Your task to perform on an android device: change notifications settings Image 0: 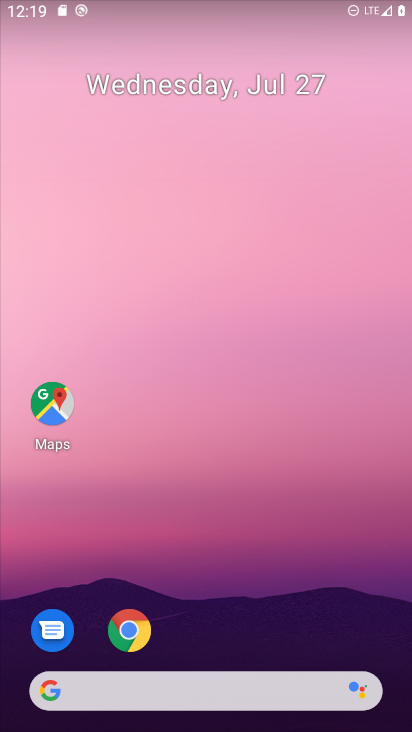
Step 0: drag from (376, 628) to (332, 206)
Your task to perform on an android device: change notifications settings Image 1: 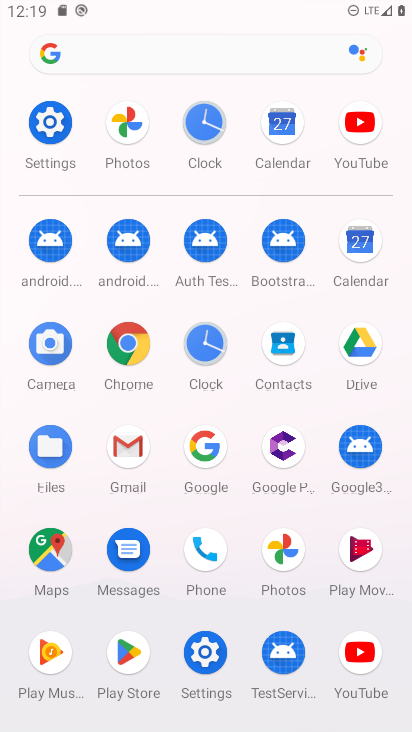
Step 1: click (202, 653)
Your task to perform on an android device: change notifications settings Image 2: 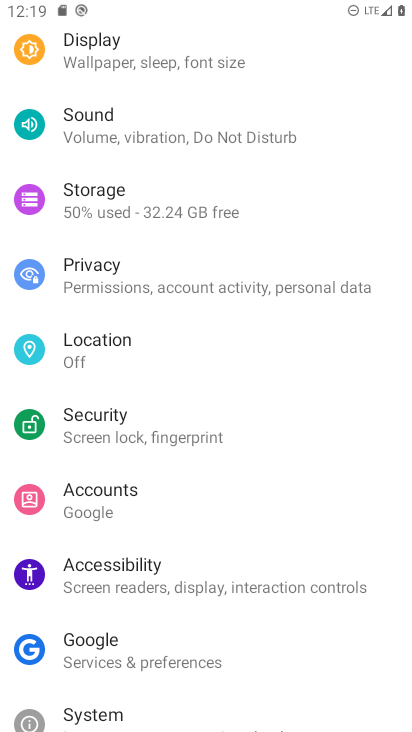
Step 2: drag from (346, 174) to (342, 451)
Your task to perform on an android device: change notifications settings Image 3: 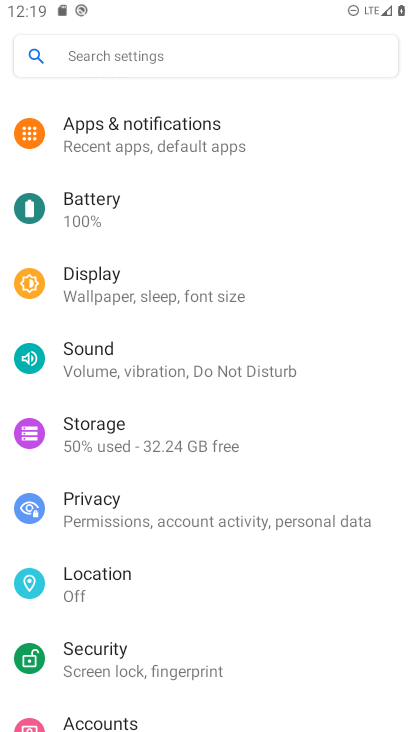
Step 3: click (86, 124)
Your task to perform on an android device: change notifications settings Image 4: 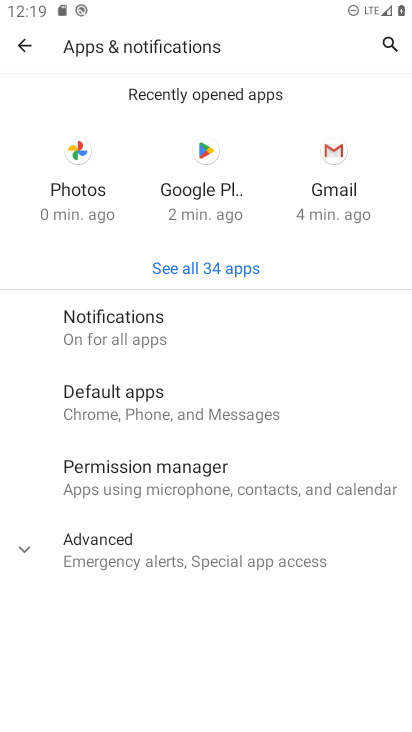
Step 4: click (112, 326)
Your task to perform on an android device: change notifications settings Image 5: 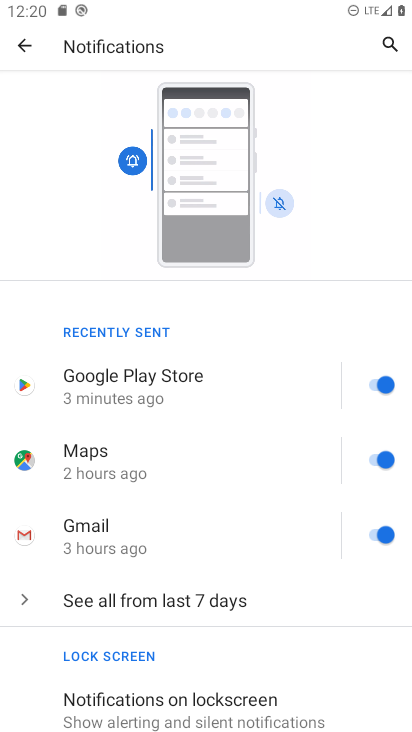
Step 5: drag from (264, 628) to (264, 324)
Your task to perform on an android device: change notifications settings Image 6: 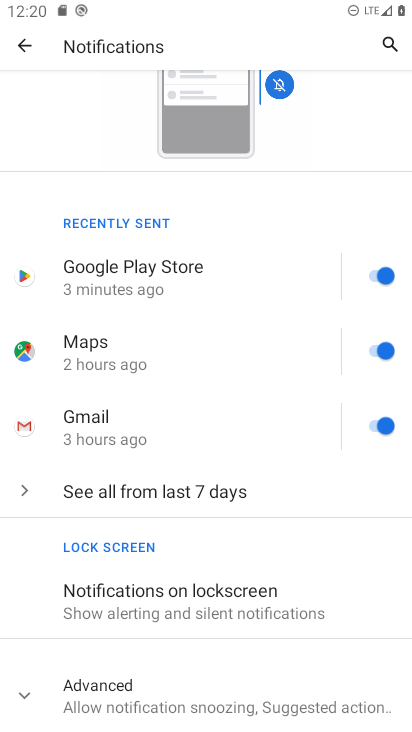
Step 6: click (27, 698)
Your task to perform on an android device: change notifications settings Image 7: 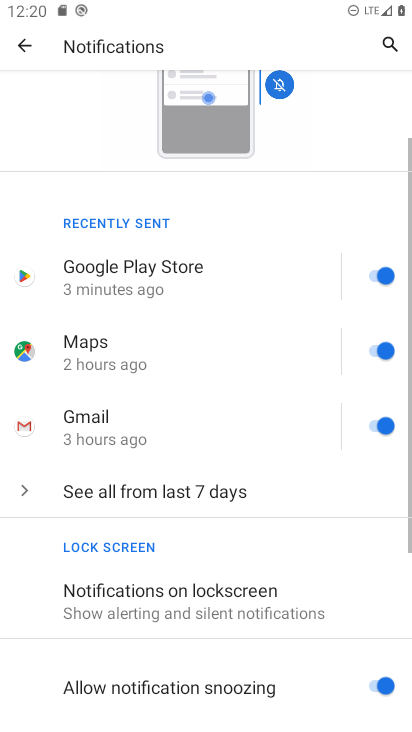
Step 7: drag from (266, 636) to (281, 430)
Your task to perform on an android device: change notifications settings Image 8: 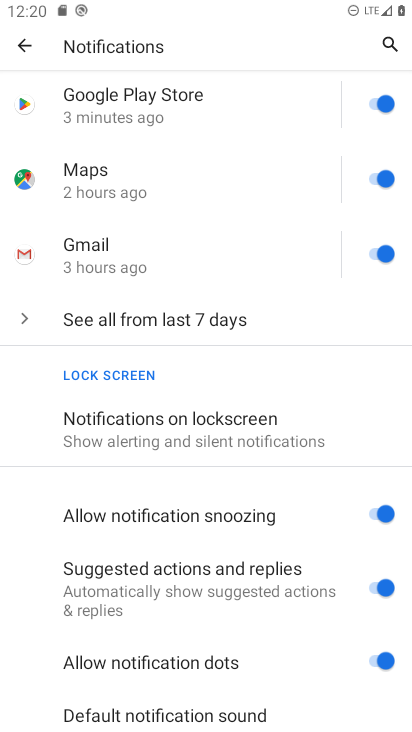
Step 8: click (378, 513)
Your task to perform on an android device: change notifications settings Image 9: 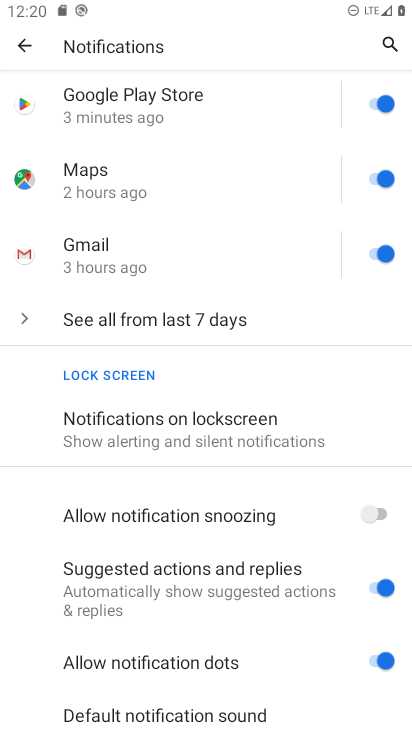
Step 9: click (371, 664)
Your task to perform on an android device: change notifications settings Image 10: 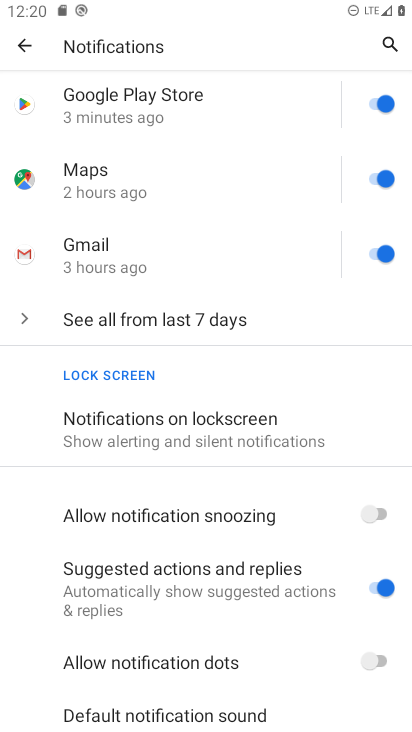
Step 10: task complete